Your task to perform on an android device: visit the assistant section in the google photos Image 0: 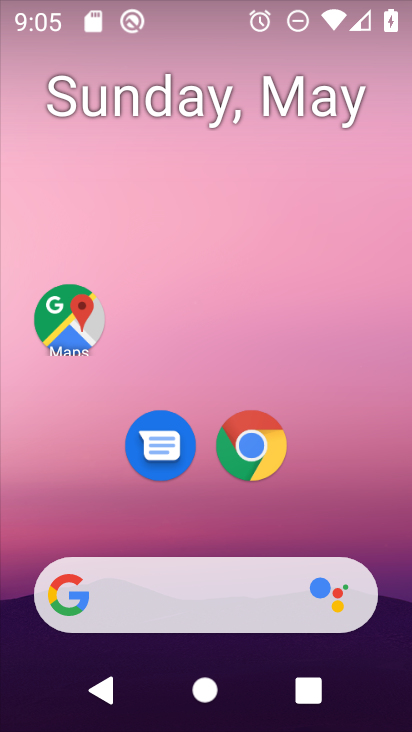
Step 0: drag from (285, 585) to (269, 309)
Your task to perform on an android device: visit the assistant section in the google photos Image 1: 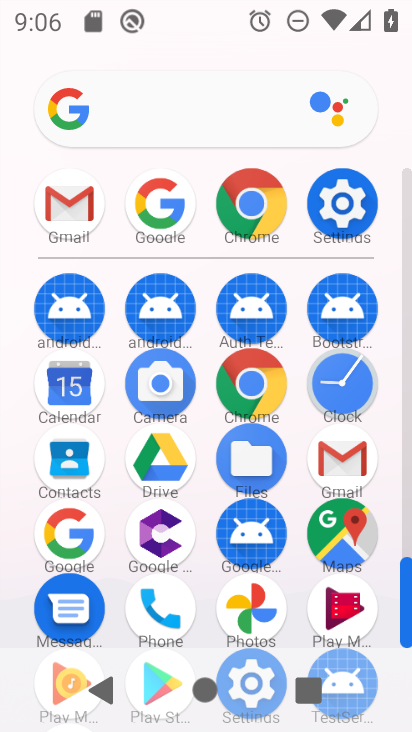
Step 1: click (277, 608)
Your task to perform on an android device: visit the assistant section in the google photos Image 2: 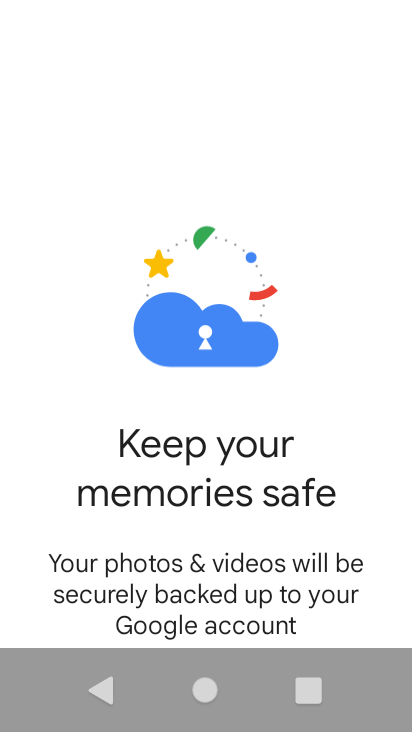
Step 2: click (287, 542)
Your task to perform on an android device: visit the assistant section in the google photos Image 3: 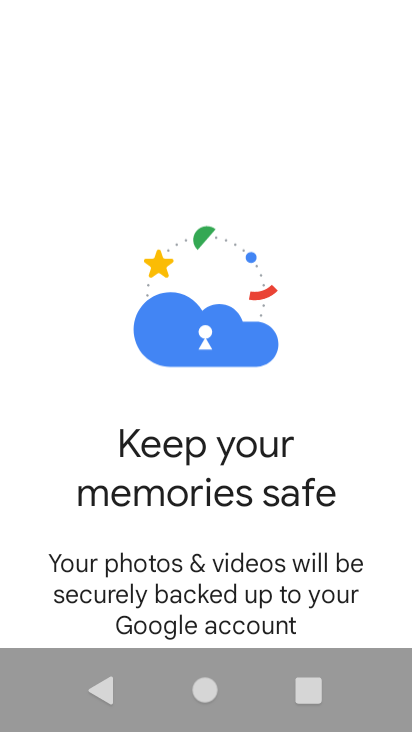
Step 3: press home button
Your task to perform on an android device: visit the assistant section in the google photos Image 4: 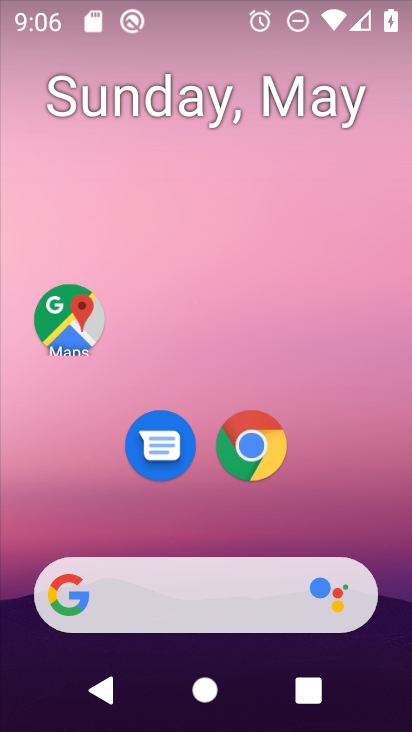
Step 4: drag from (220, 506) to (281, 139)
Your task to perform on an android device: visit the assistant section in the google photos Image 5: 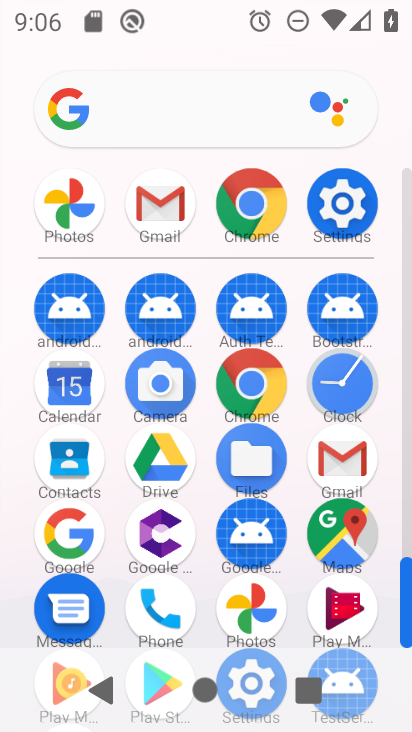
Step 5: drag from (245, 421) to (303, 229)
Your task to perform on an android device: visit the assistant section in the google photos Image 6: 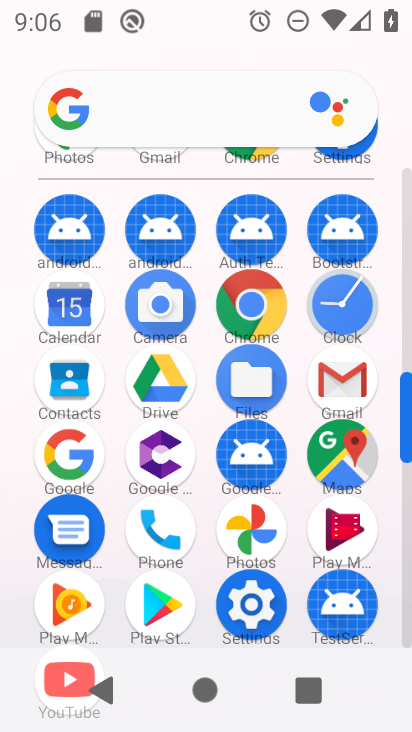
Step 6: click (255, 538)
Your task to perform on an android device: visit the assistant section in the google photos Image 7: 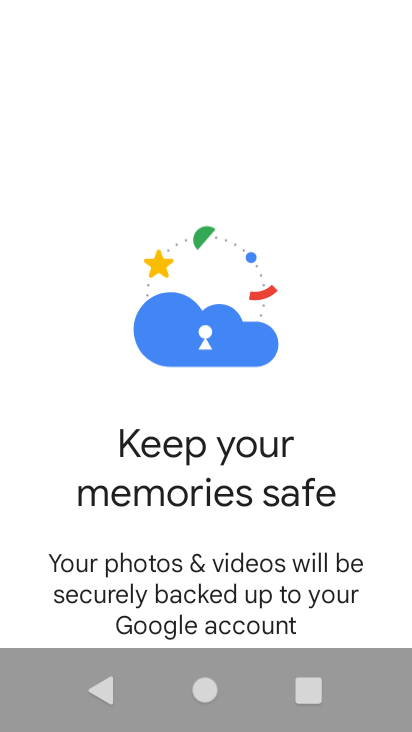
Step 7: click (305, 425)
Your task to perform on an android device: visit the assistant section in the google photos Image 8: 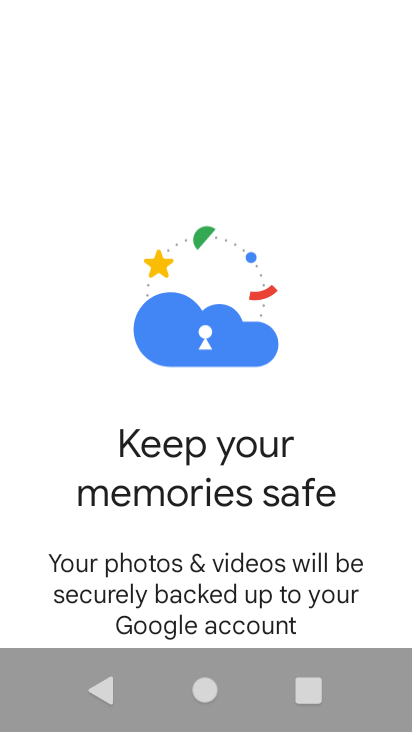
Step 8: click (217, 500)
Your task to perform on an android device: visit the assistant section in the google photos Image 9: 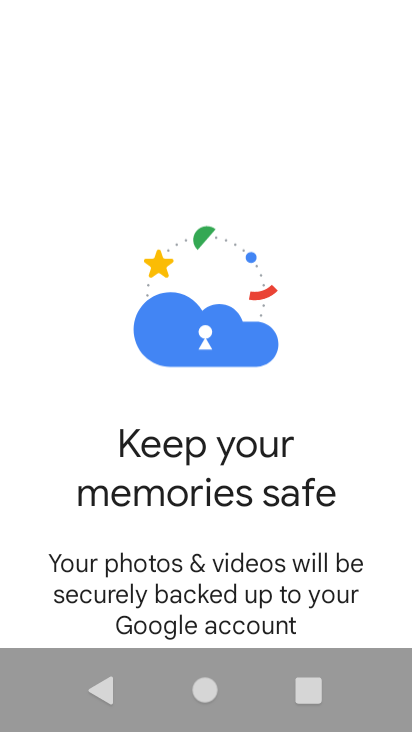
Step 9: click (209, 493)
Your task to perform on an android device: visit the assistant section in the google photos Image 10: 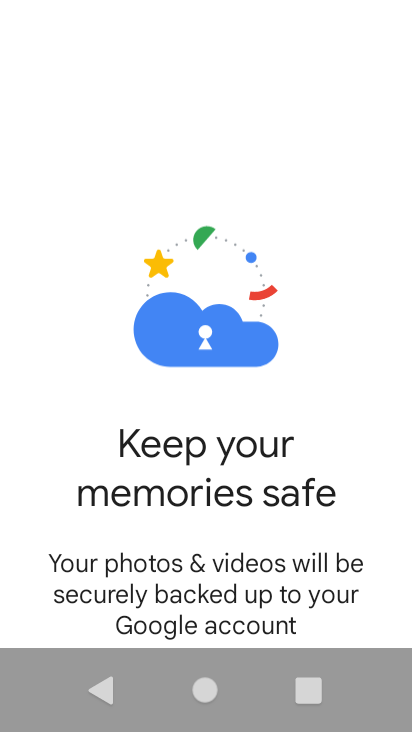
Step 10: task complete